Your task to perform on an android device: When is my next appointment? Image 0: 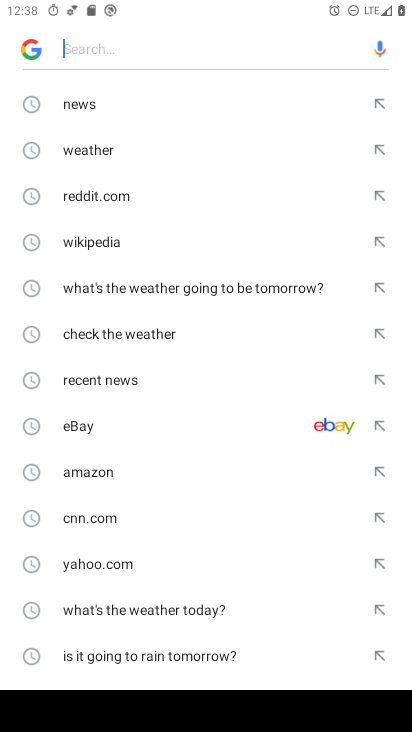
Step 0: press home button
Your task to perform on an android device: When is my next appointment? Image 1: 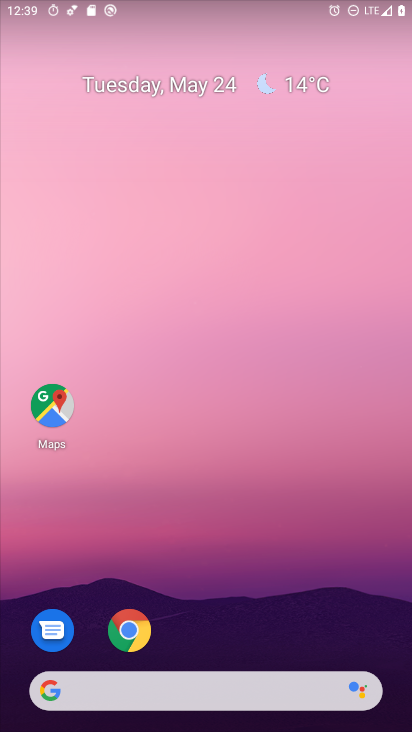
Step 1: drag from (317, 651) to (335, 207)
Your task to perform on an android device: When is my next appointment? Image 2: 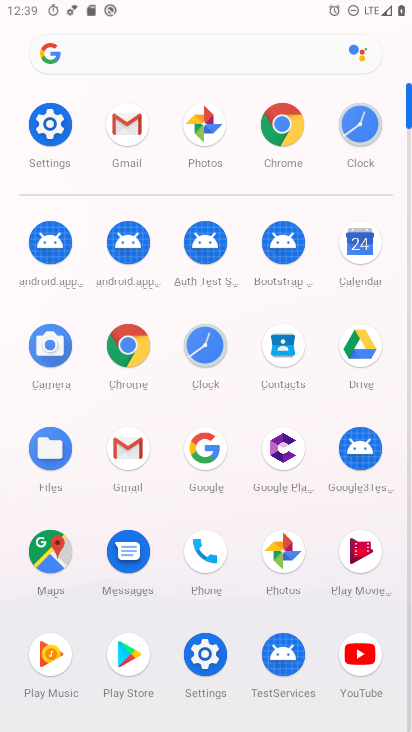
Step 2: click (358, 251)
Your task to perform on an android device: When is my next appointment? Image 3: 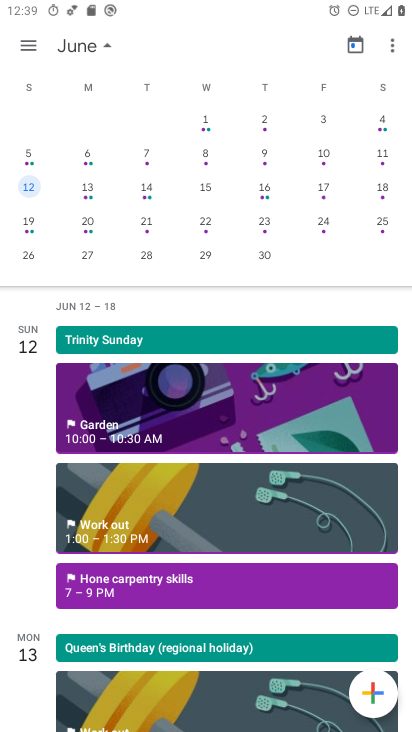
Step 3: drag from (208, 514) to (230, 363)
Your task to perform on an android device: When is my next appointment? Image 4: 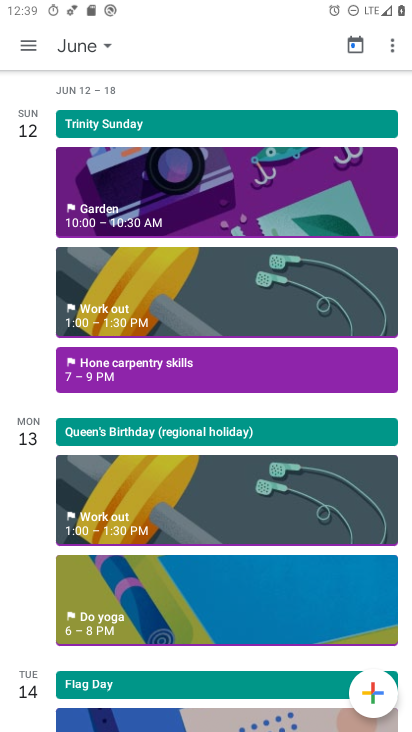
Step 4: drag from (73, 99) to (82, 638)
Your task to perform on an android device: When is my next appointment? Image 5: 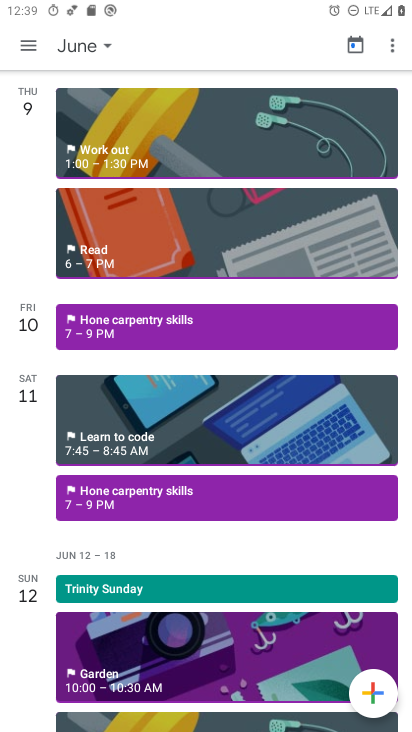
Step 5: drag from (101, 644) to (116, 592)
Your task to perform on an android device: When is my next appointment? Image 6: 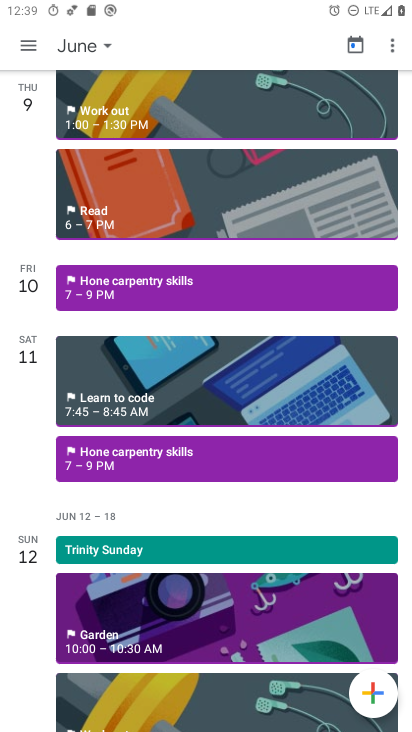
Step 6: drag from (184, 254) to (185, 499)
Your task to perform on an android device: When is my next appointment? Image 7: 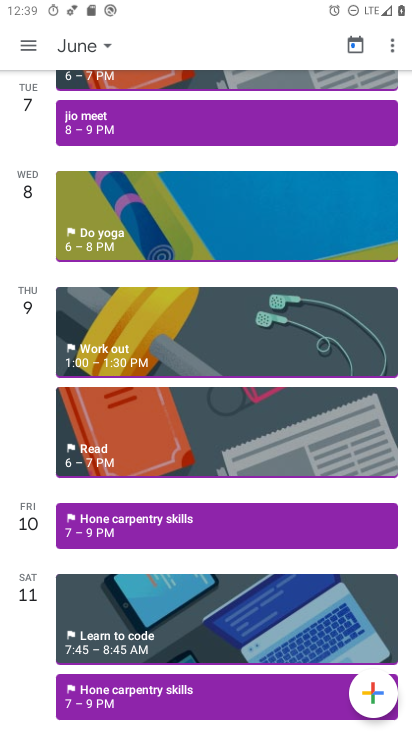
Step 7: click (125, 130)
Your task to perform on an android device: When is my next appointment? Image 8: 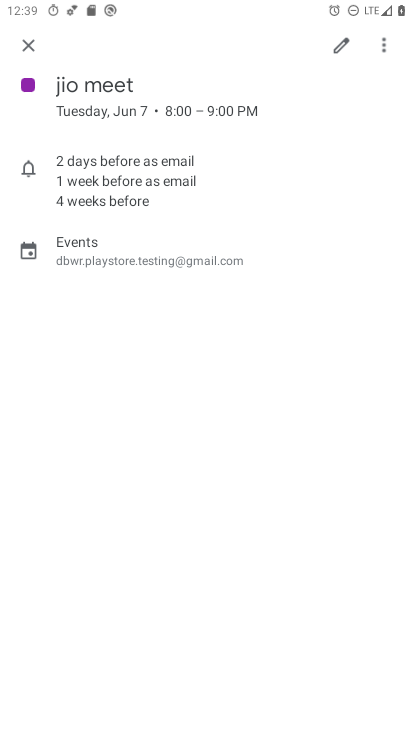
Step 8: task complete